Your task to perform on an android device: Go to Reddit.com Image 0: 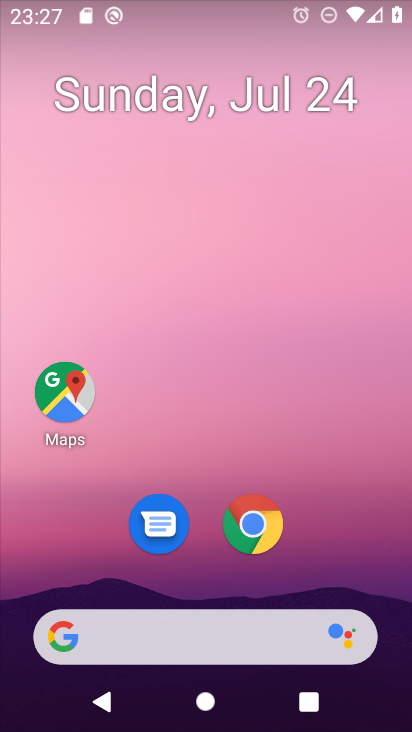
Step 0: click (250, 530)
Your task to perform on an android device: Go to Reddit.com Image 1: 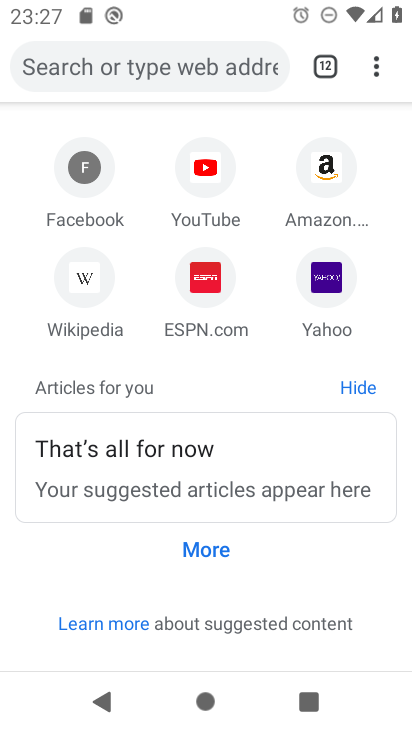
Step 1: click (145, 72)
Your task to perform on an android device: Go to Reddit.com Image 2: 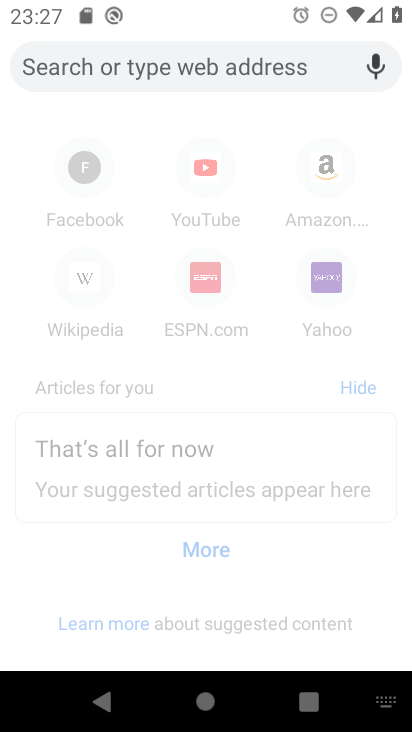
Step 2: type "reddit.com"
Your task to perform on an android device: Go to Reddit.com Image 3: 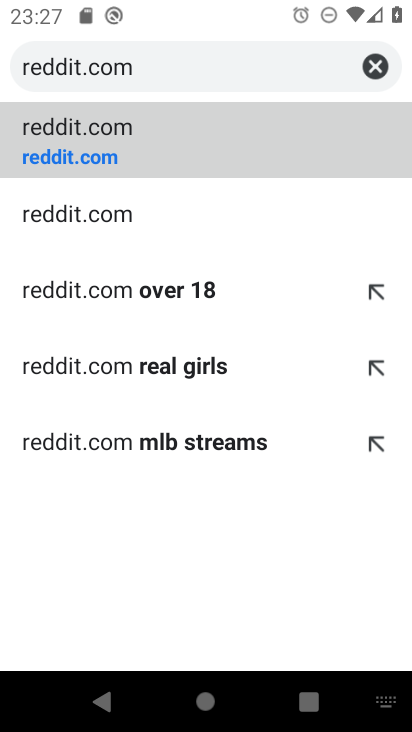
Step 3: click (154, 147)
Your task to perform on an android device: Go to Reddit.com Image 4: 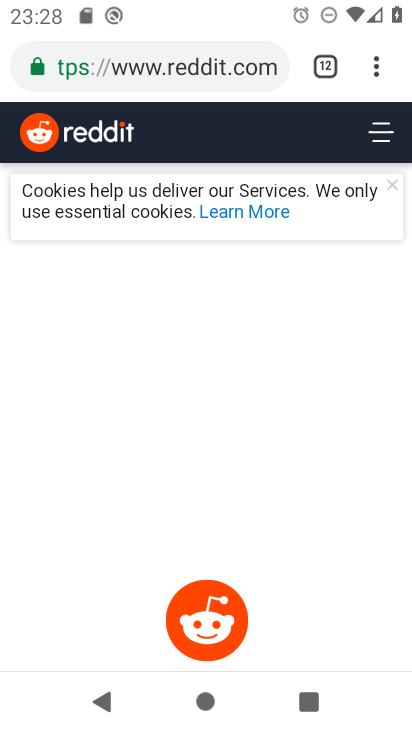
Step 4: task complete